Your task to perform on an android device: turn on location history Image 0: 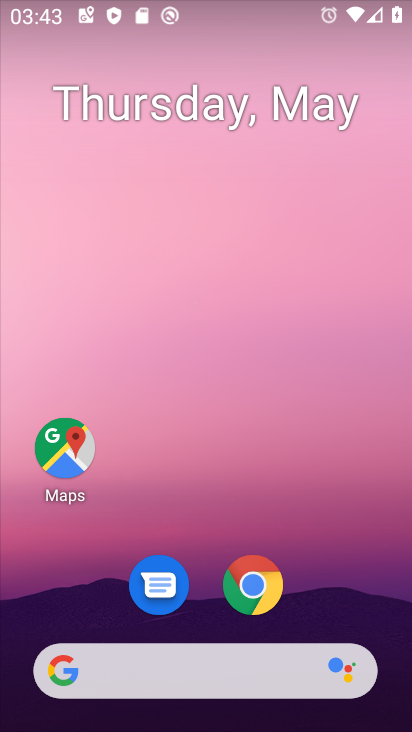
Step 0: drag from (221, 516) to (204, 33)
Your task to perform on an android device: turn on location history Image 1: 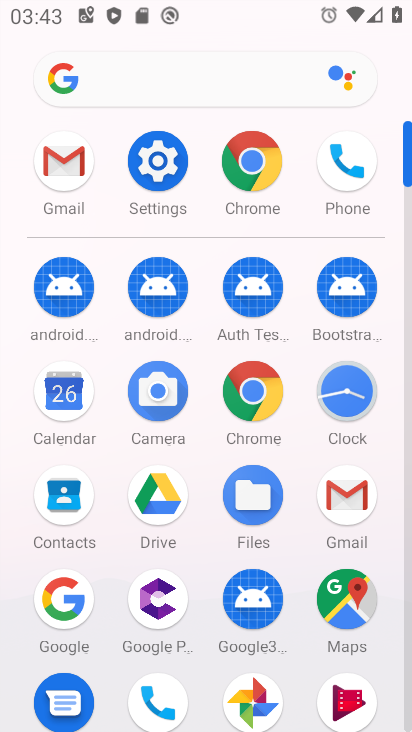
Step 1: click (165, 157)
Your task to perform on an android device: turn on location history Image 2: 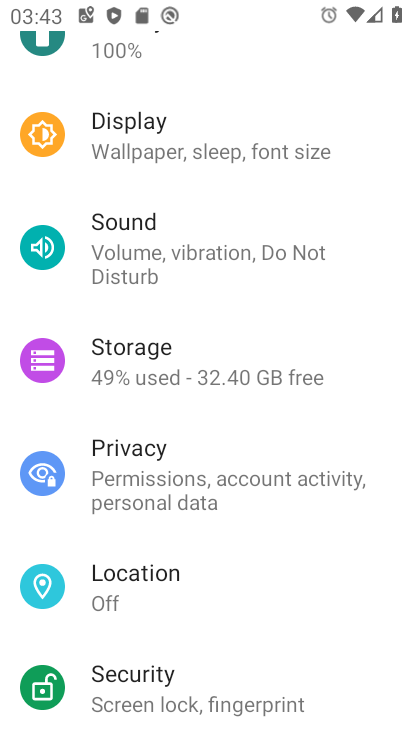
Step 2: click (181, 573)
Your task to perform on an android device: turn on location history Image 3: 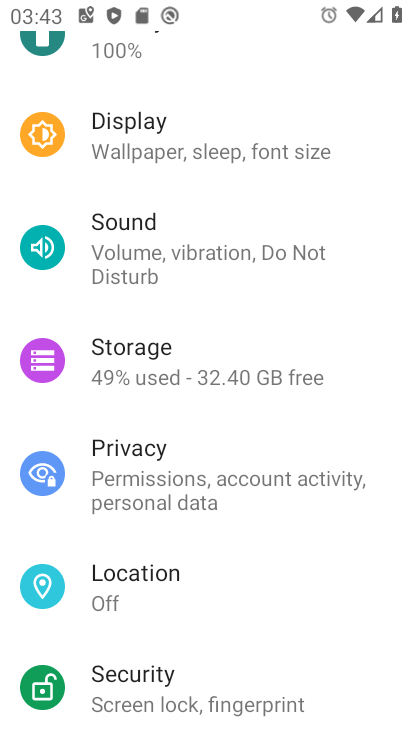
Step 3: click (188, 578)
Your task to perform on an android device: turn on location history Image 4: 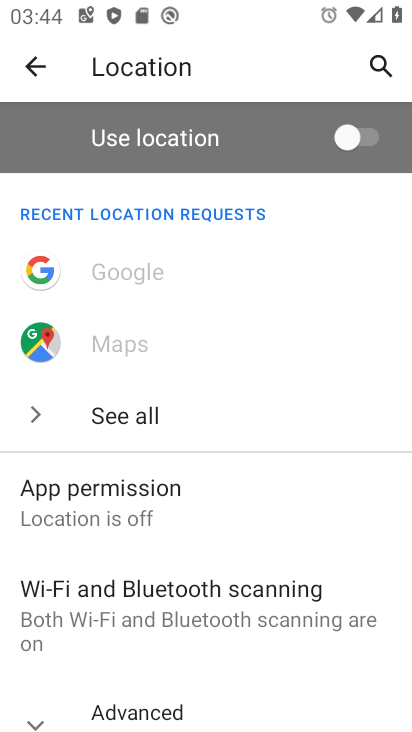
Step 4: drag from (197, 549) to (225, 189)
Your task to perform on an android device: turn on location history Image 5: 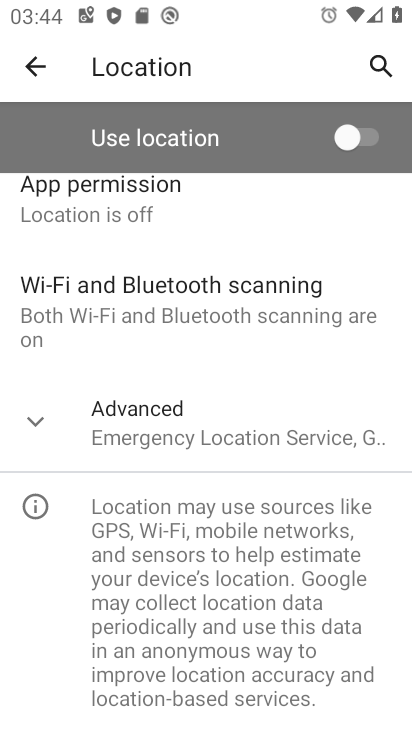
Step 5: click (28, 416)
Your task to perform on an android device: turn on location history Image 6: 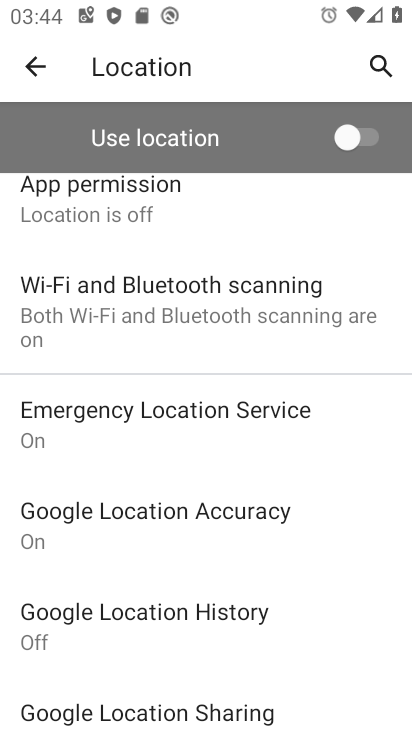
Step 6: click (195, 620)
Your task to perform on an android device: turn on location history Image 7: 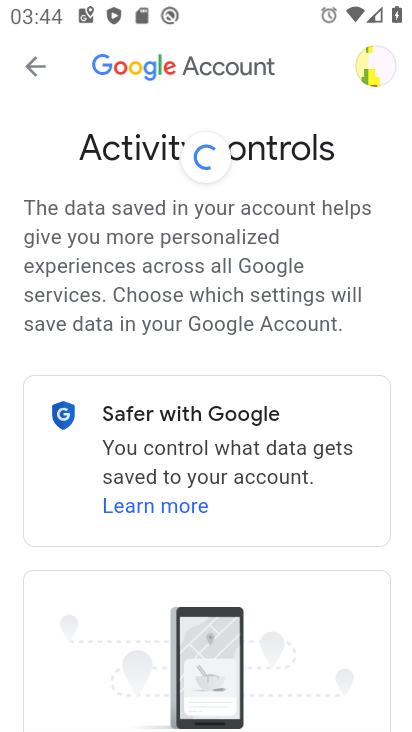
Step 7: drag from (290, 643) to (304, 107)
Your task to perform on an android device: turn on location history Image 8: 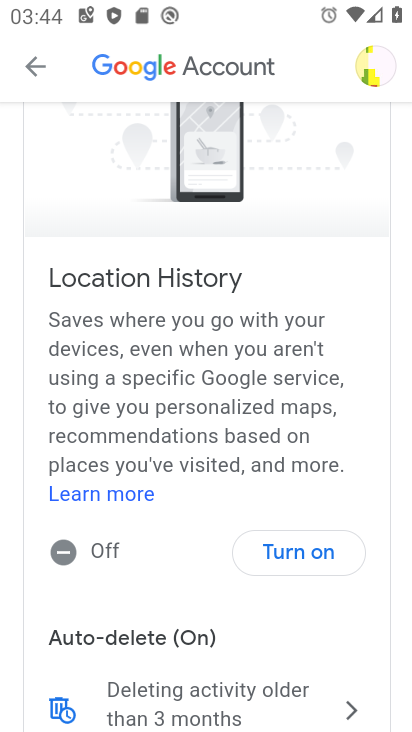
Step 8: click (310, 546)
Your task to perform on an android device: turn on location history Image 9: 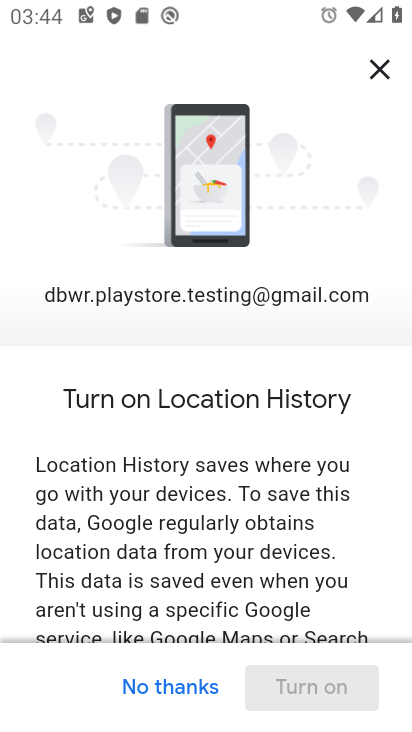
Step 9: drag from (307, 545) to (325, 100)
Your task to perform on an android device: turn on location history Image 10: 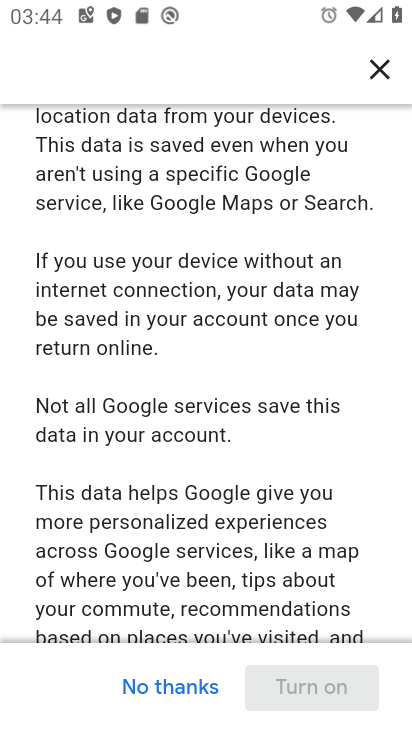
Step 10: drag from (276, 477) to (307, 61)
Your task to perform on an android device: turn on location history Image 11: 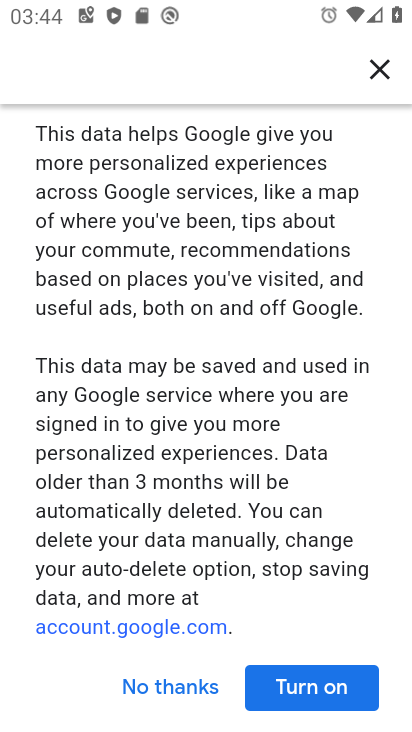
Step 11: click (340, 686)
Your task to perform on an android device: turn on location history Image 12: 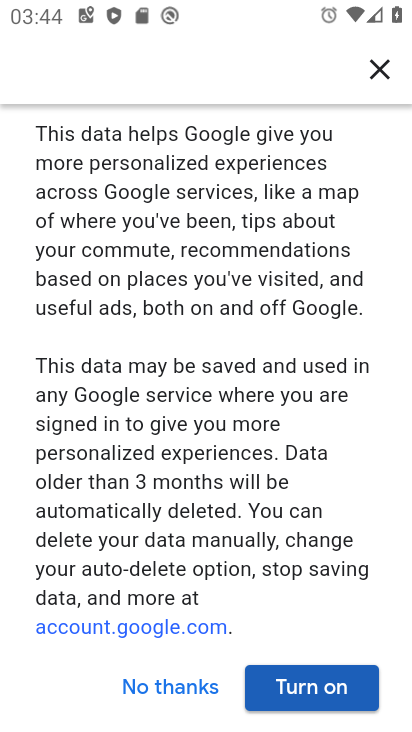
Step 12: click (340, 686)
Your task to perform on an android device: turn on location history Image 13: 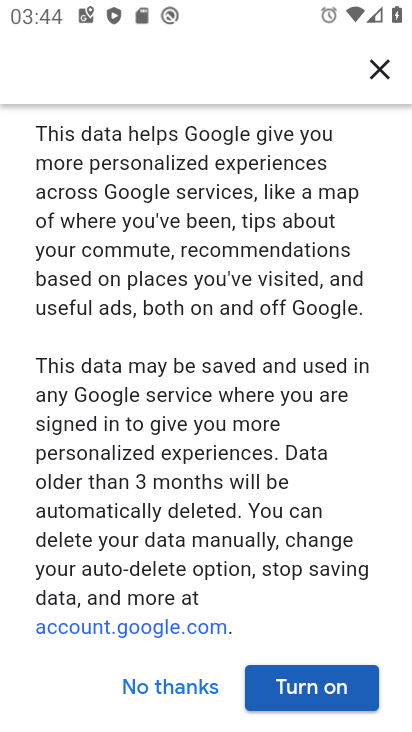
Step 13: click (340, 684)
Your task to perform on an android device: turn on location history Image 14: 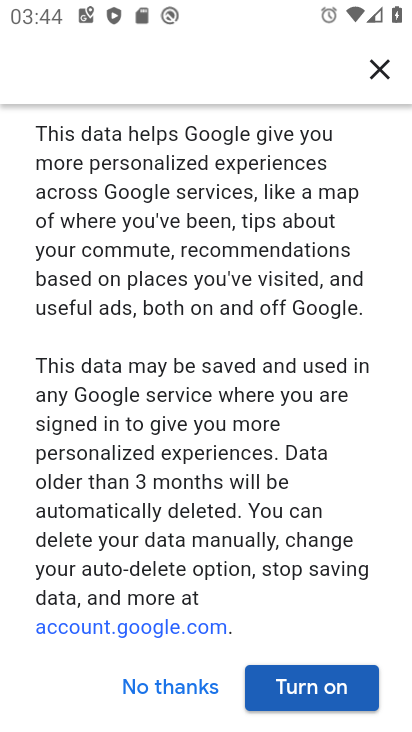
Step 14: click (340, 682)
Your task to perform on an android device: turn on location history Image 15: 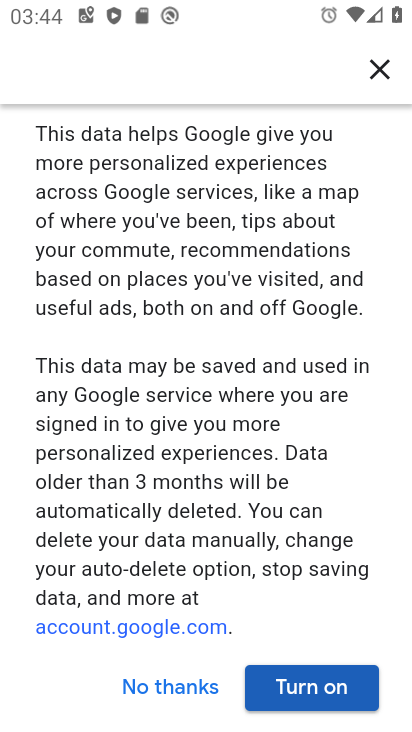
Step 15: click (340, 682)
Your task to perform on an android device: turn on location history Image 16: 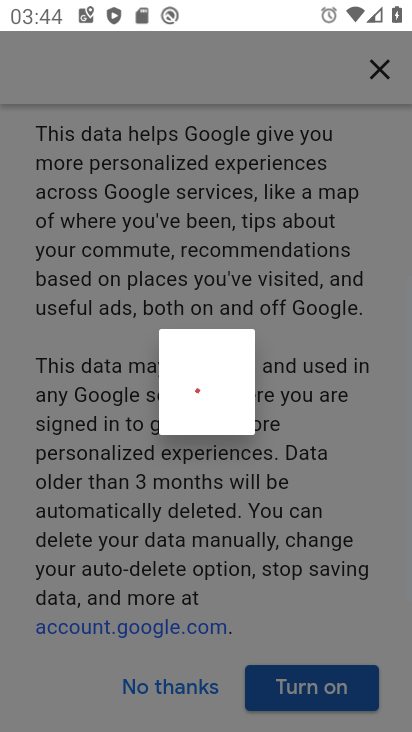
Step 16: click (317, 690)
Your task to perform on an android device: turn on location history Image 17: 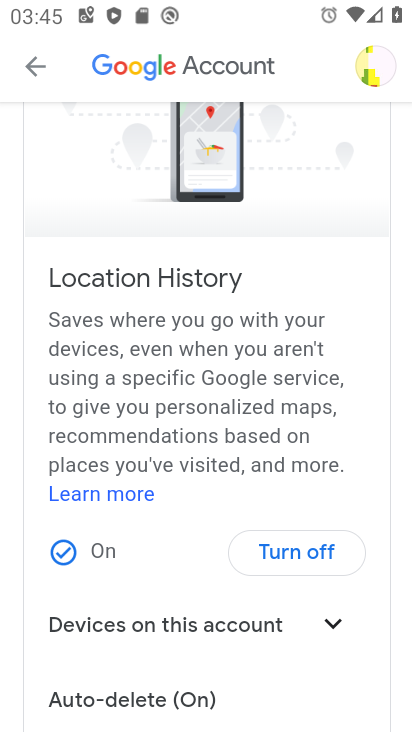
Step 17: task complete